Your task to perform on an android device: Open sound settings Image 0: 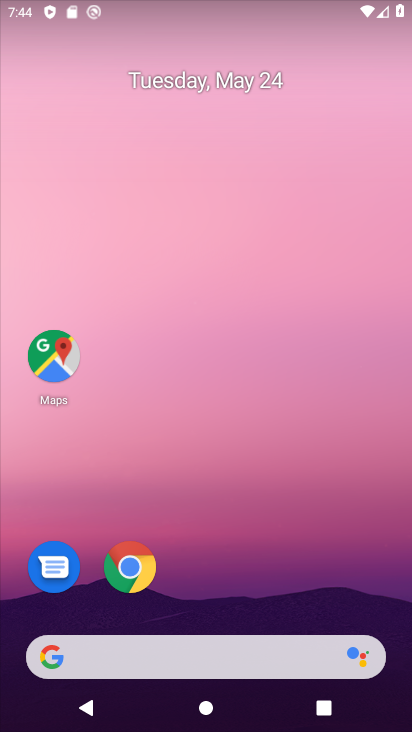
Step 0: drag from (276, 455) to (405, 479)
Your task to perform on an android device: Open sound settings Image 1: 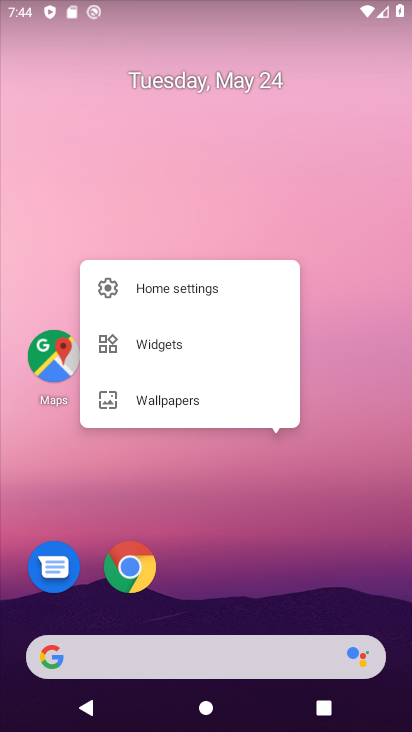
Step 1: drag from (275, 665) to (202, 0)
Your task to perform on an android device: Open sound settings Image 2: 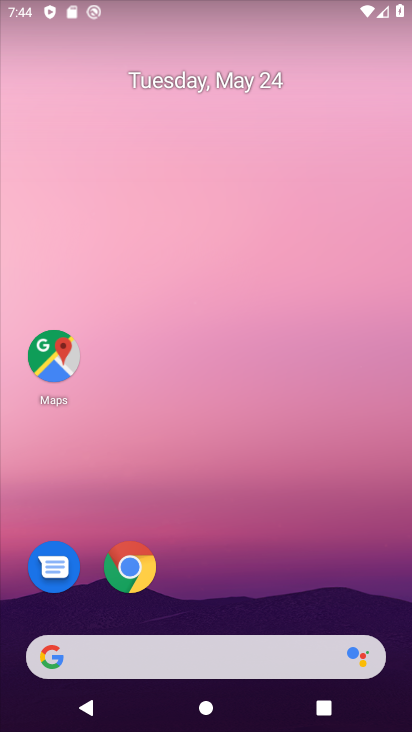
Step 2: click (157, 34)
Your task to perform on an android device: Open sound settings Image 3: 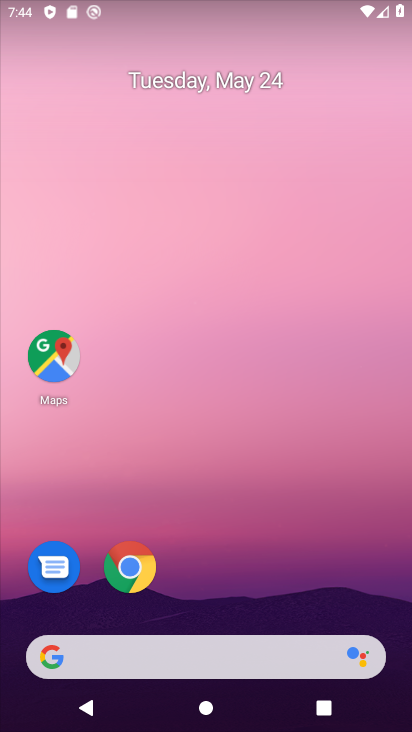
Step 3: drag from (220, 195) to (206, 112)
Your task to perform on an android device: Open sound settings Image 4: 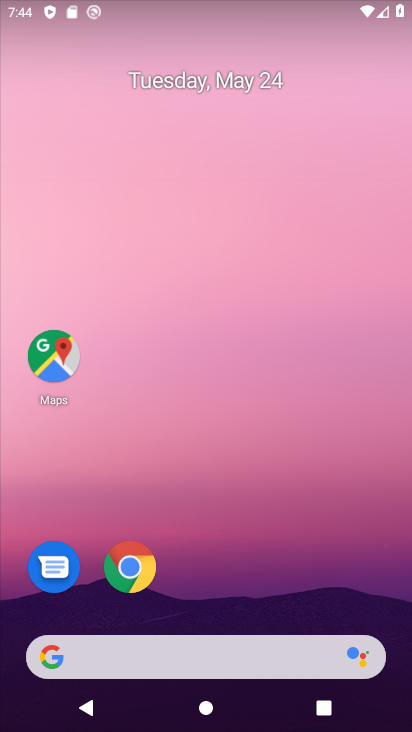
Step 4: drag from (306, 597) to (233, 75)
Your task to perform on an android device: Open sound settings Image 5: 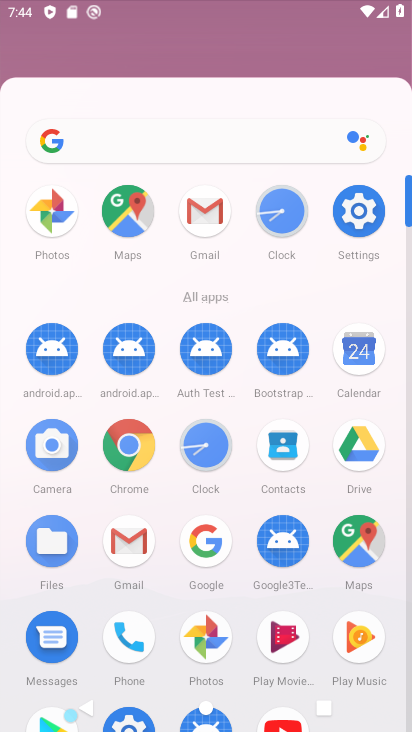
Step 5: drag from (280, 455) to (216, 15)
Your task to perform on an android device: Open sound settings Image 6: 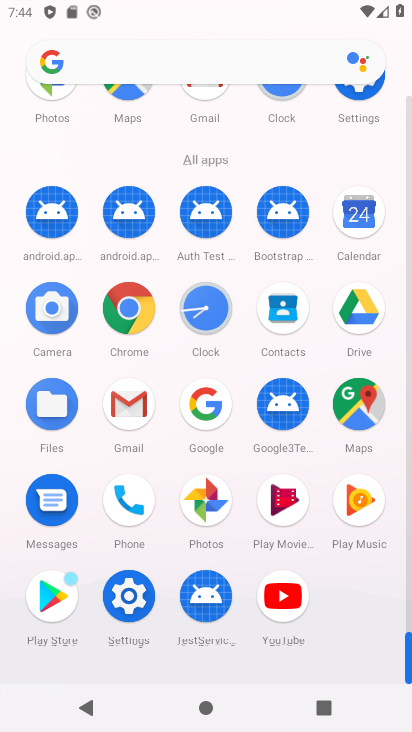
Step 6: drag from (262, 455) to (203, 34)
Your task to perform on an android device: Open sound settings Image 7: 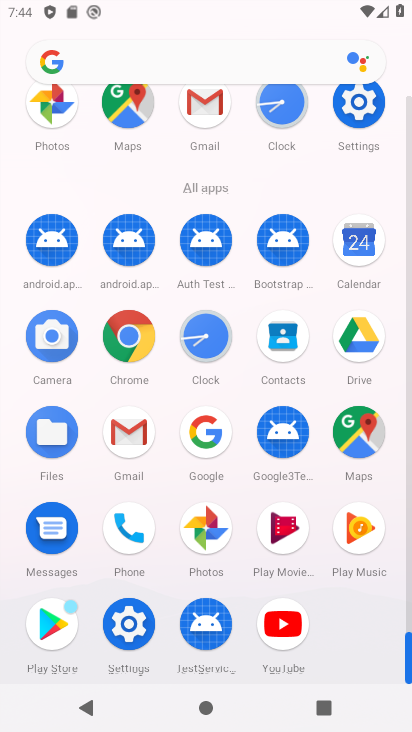
Step 7: click (349, 213)
Your task to perform on an android device: Open sound settings Image 8: 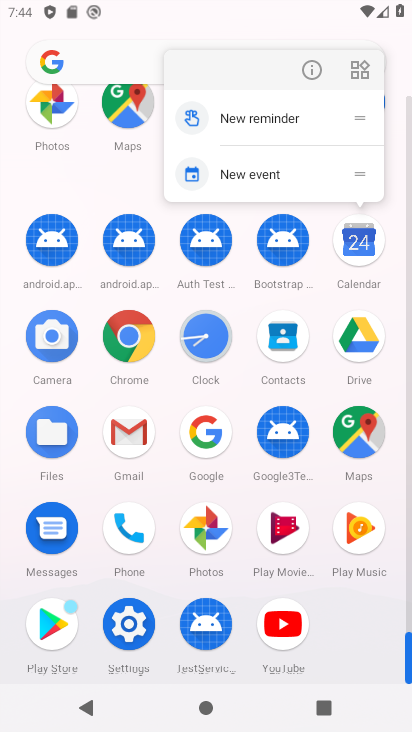
Step 8: click (343, 106)
Your task to perform on an android device: Open sound settings Image 9: 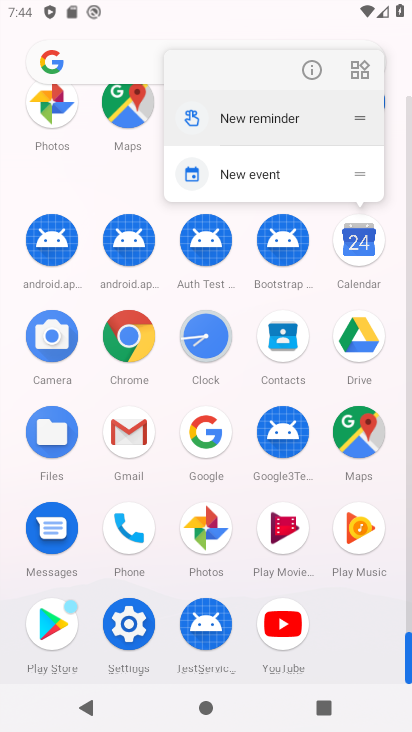
Step 9: click (348, 103)
Your task to perform on an android device: Open sound settings Image 10: 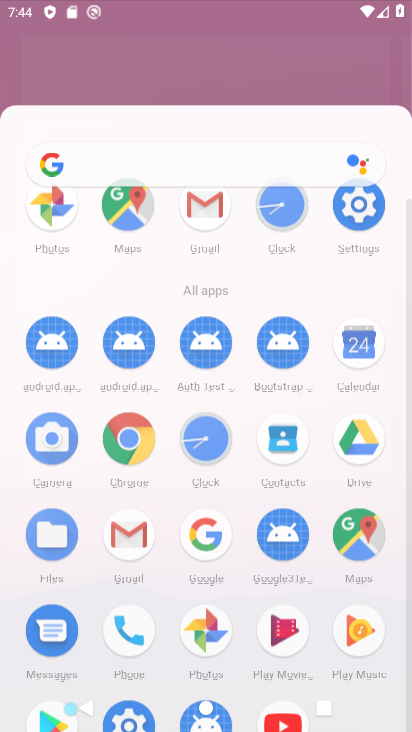
Step 10: click (353, 110)
Your task to perform on an android device: Open sound settings Image 11: 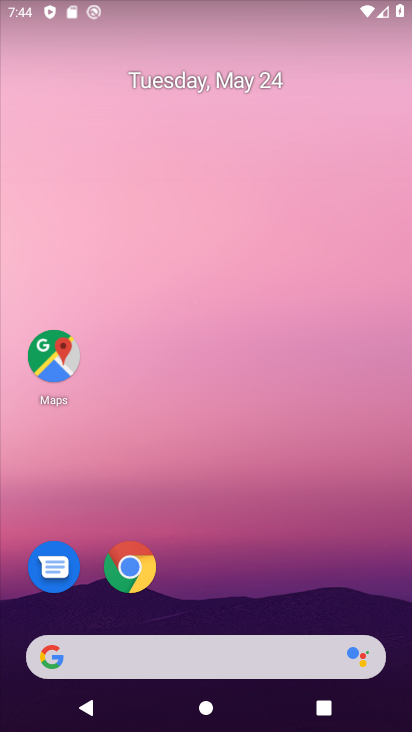
Step 11: click (351, 523)
Your task to perform on an android device: Open sound settings Image 12: 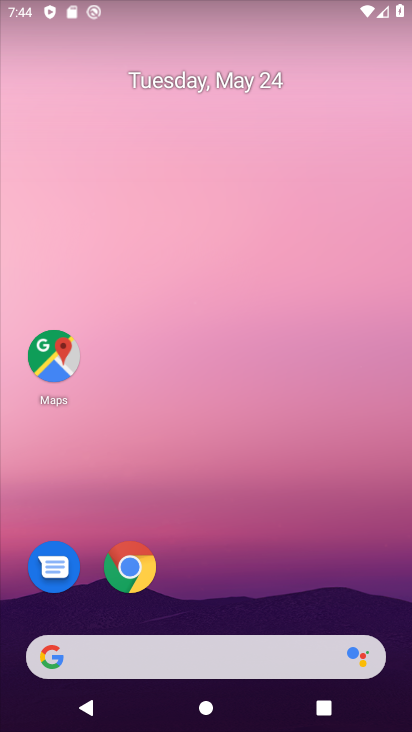
Step 12: drag from (262, 699) to (201, 13)
Your task to perform on an android device: Open sound settings Image 13: 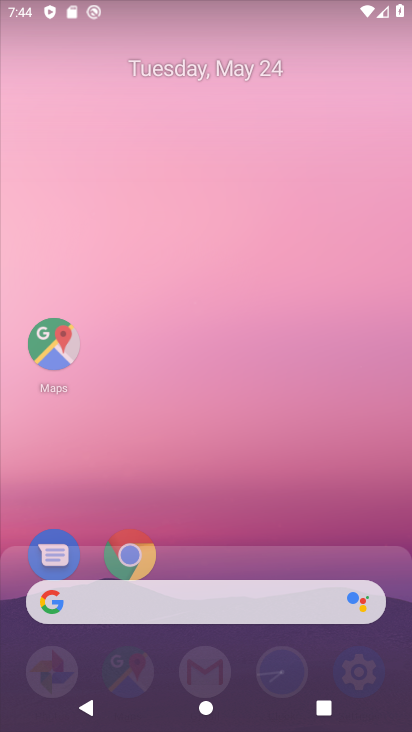
Step 13: drag from (264, 573) to (203, 31)
Your task to perform on an android device: Open sound settings Image 14: 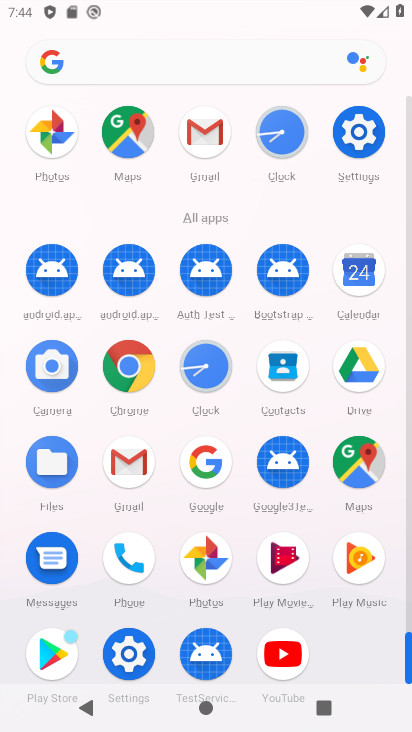
Step 14: click (364, 181)
Your task to perform on an android device: Open sound settings Image 15: 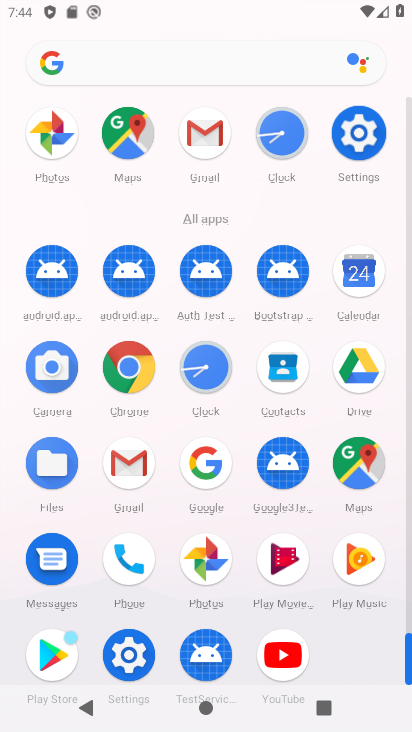
Step 15: click (364, 190)
Your task to perform on an android device: Open sound settings Image 16: 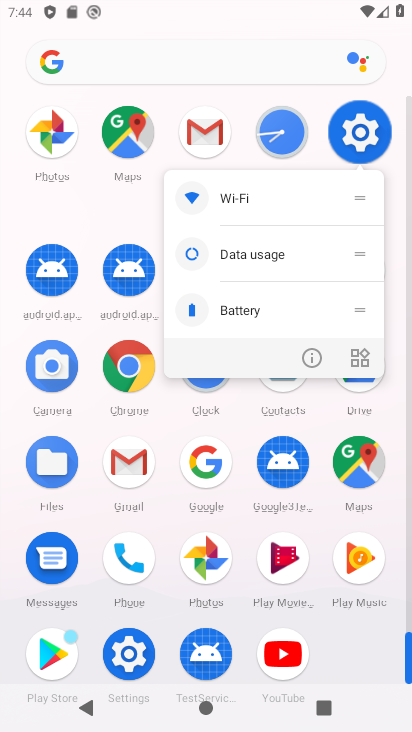
Step 16: click (365, 190)
Your task to perform on an android device: Open sound settings Image 17: 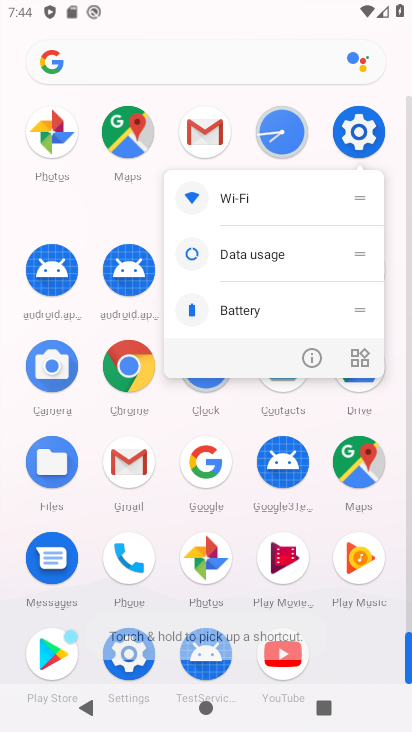
Step 17: click (351, 129)
Your task to perform on an android device: Open sound settings Image 18: 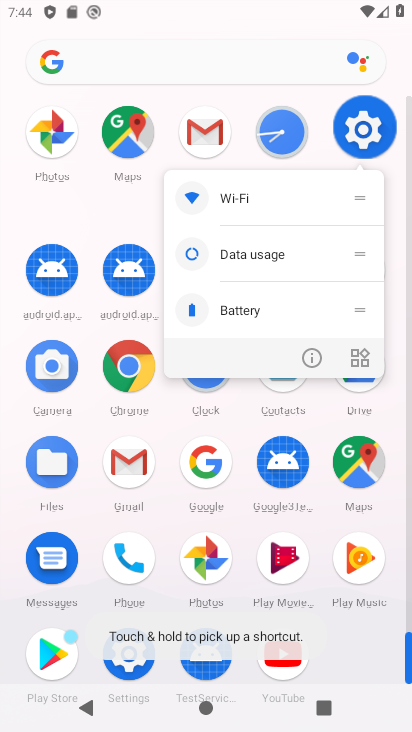
Step 18: click (357, 123)
Your task to perform on an android device: Open sound settings Image 19: 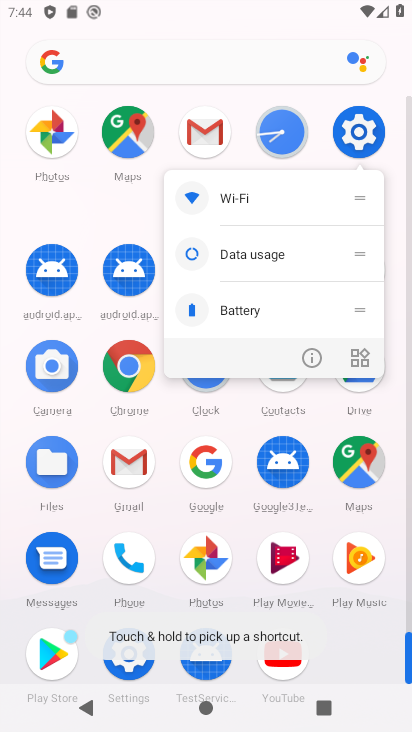
Step 19: click (357, 123)
Your task to perform on an android device: Open sound settings Image 20: 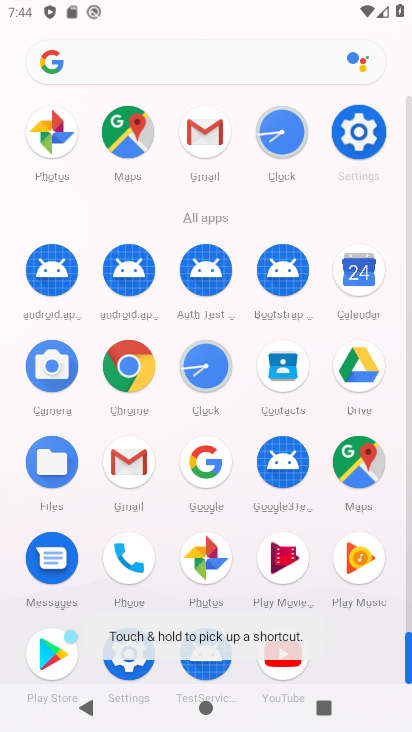
Step 20: click (357, 123)
Your task to perform on an android device: Open sound settings Image 21: 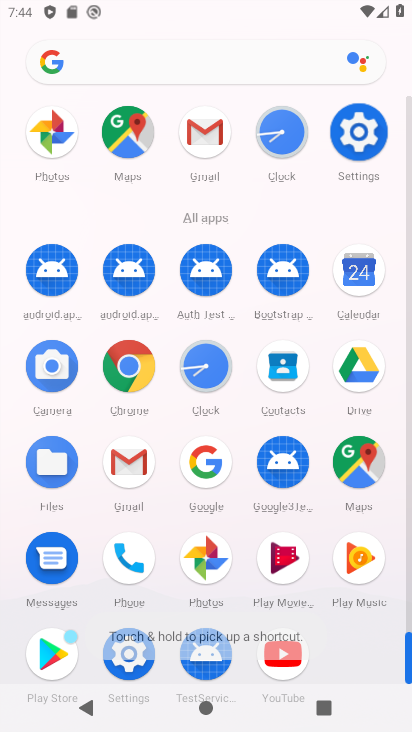
Step 21: click (358, 123)
Your task to perform on an android device: Open sound settings Image 22: 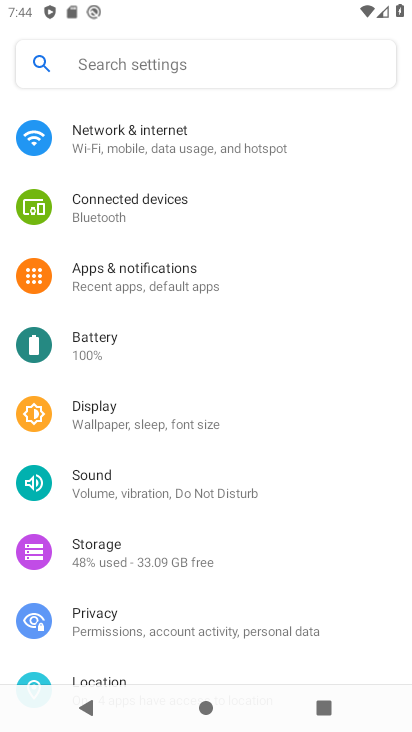
Step 22: click (358, 123)
Your task to perform on an android device: Open sound settings Image 23: 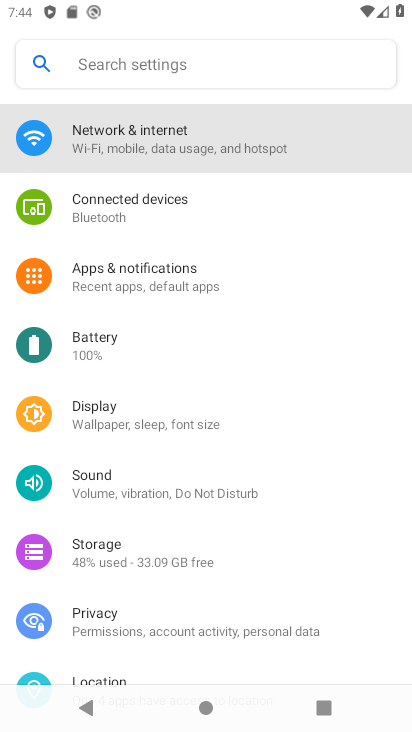
Step 23: click (358, 123)
Your task to perform on an android device: Open sound settings Image 24: 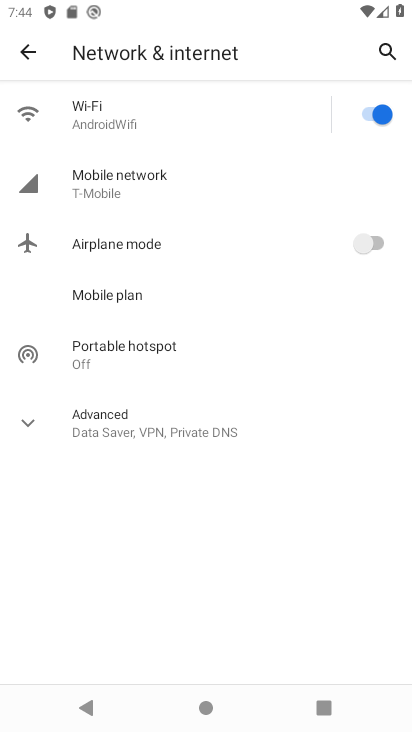
Step 24: click (31, 50)
Your task to perform on an android device: Open sound settings Image 25: 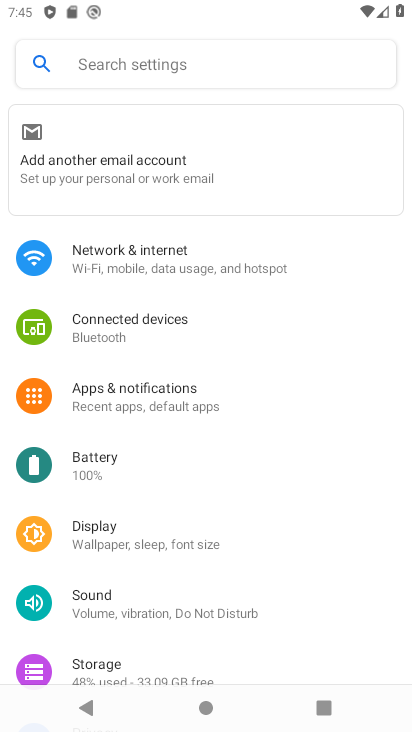
Step 25: click (94, 596)
Your task to perform on an android device: Open sound settings Image 26: 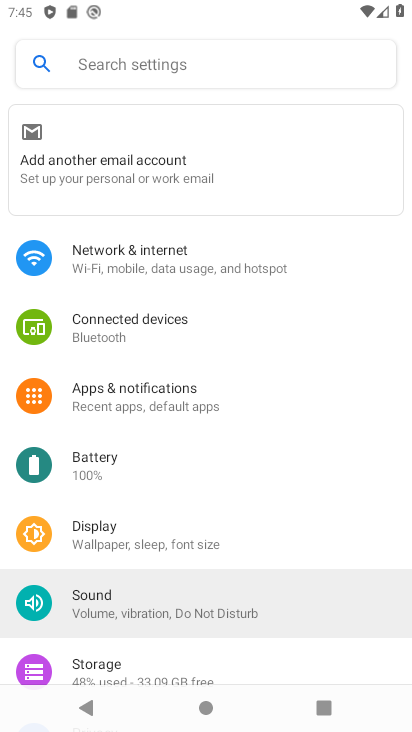
Step 26: click (94, 596)
Your task to perform on an android device: Open sound settings Image 27: 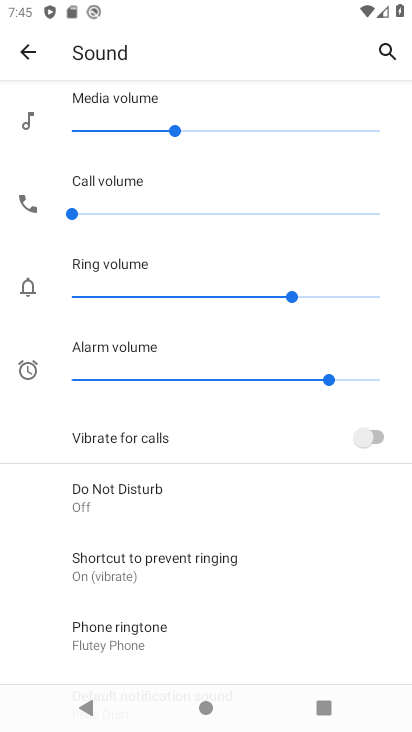
Step 27: task complete